Your task to perform on an android device: Open the map Image 0: 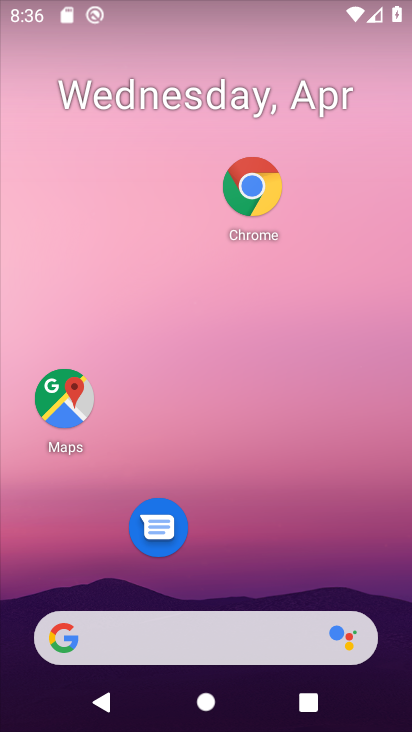
Step 0: drag from (259, 552) to (311, 216)
Your task to perform on an android device: Open the map Image 1: 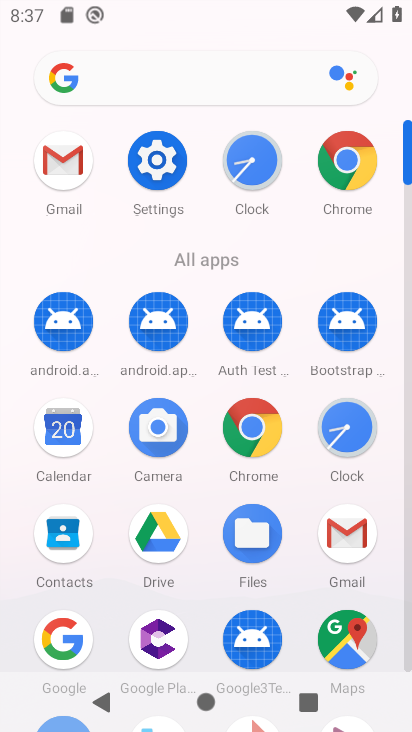
Step 1: click (348, 625)
Your task to perform on an android device: Open the map Image 2: 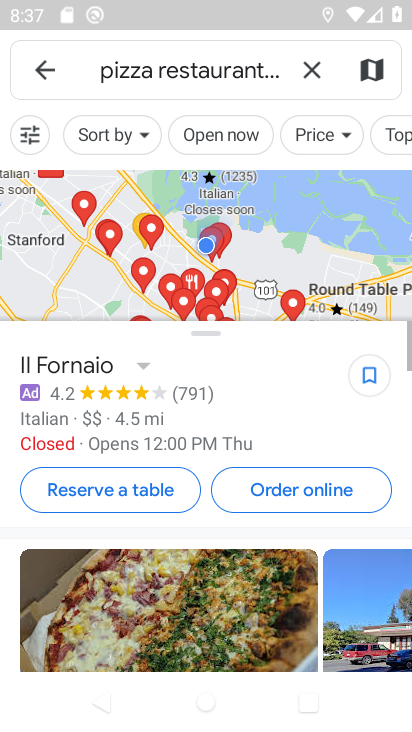
Step 2: click (37, 73)
Your task to perform on an android device: Open the map Image 3: 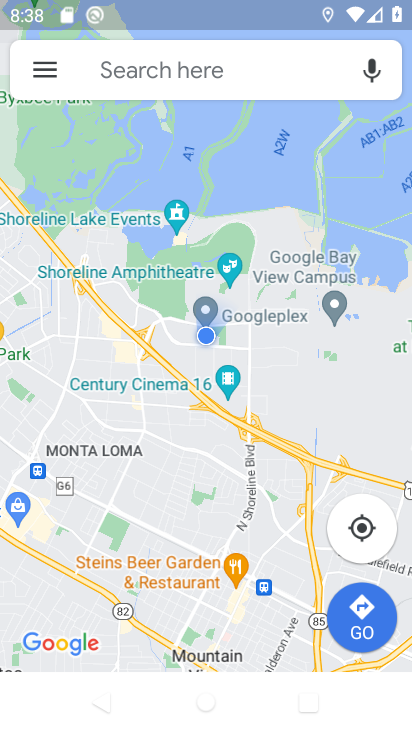
Step 3: task complete